Your task to perform on an android device: Open Youtube and go to the subscriptions tab Image 0: 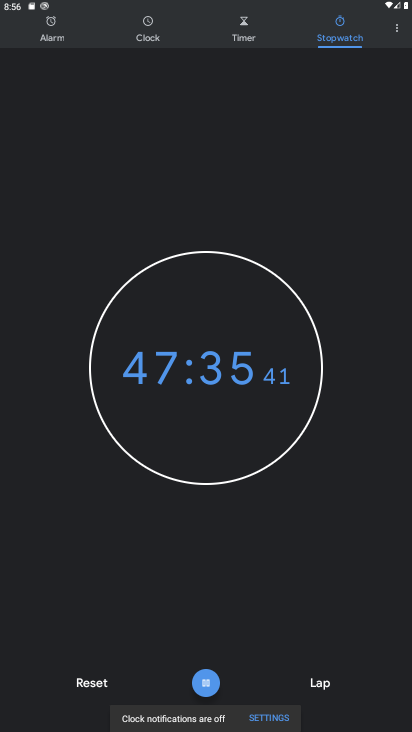
Step 0: press home button
Your task to perform on an android device: Open Youtube and go to the subscriptions tab Image 1: 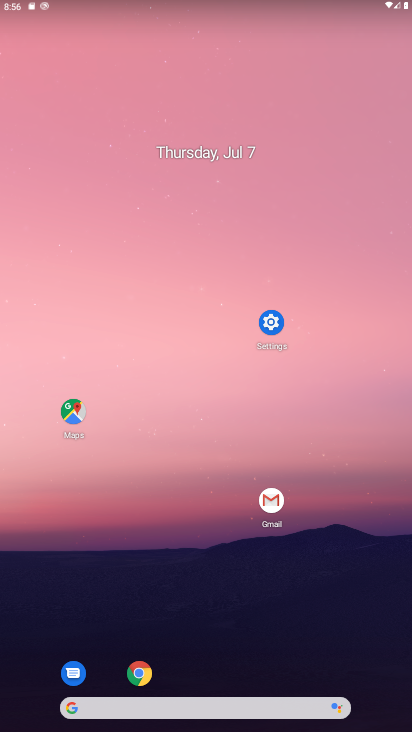
Step 1: drag from (374, 630) to (383, 195)
Your task to perform on an android device: Open Youtube and go to the subscriptions tab Image 2: 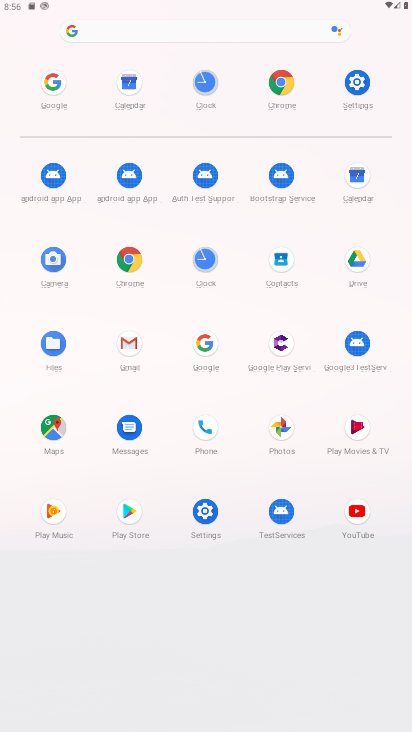
Step 2: click (356, 500)
Your task to perform on an android device: Open Youtube and go to the subscriptions tab Image 3: 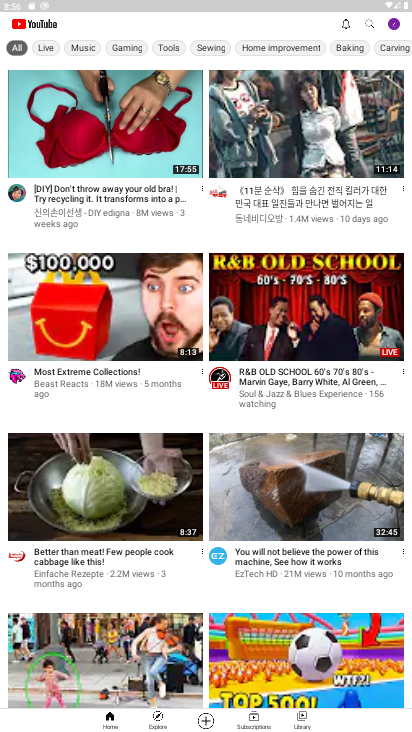
Step 3: click (252, 713)
Your task to perform on an android device: Open Youtube and go to the subscriptions tab Image 4: 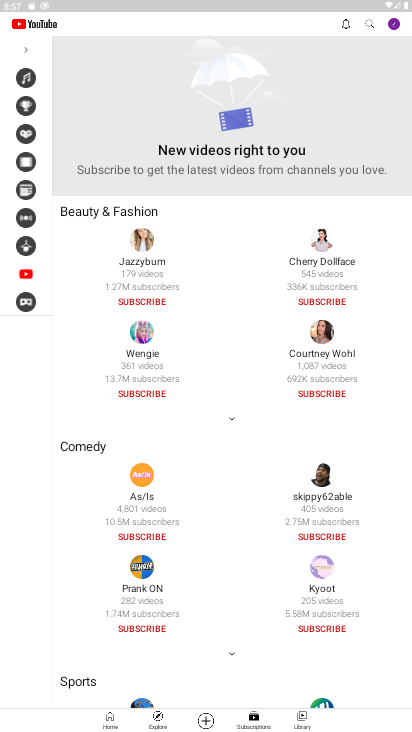
Step 4: task complete